Your task to perform on an android device: toggle notifications settings in the gmail app Image 0: 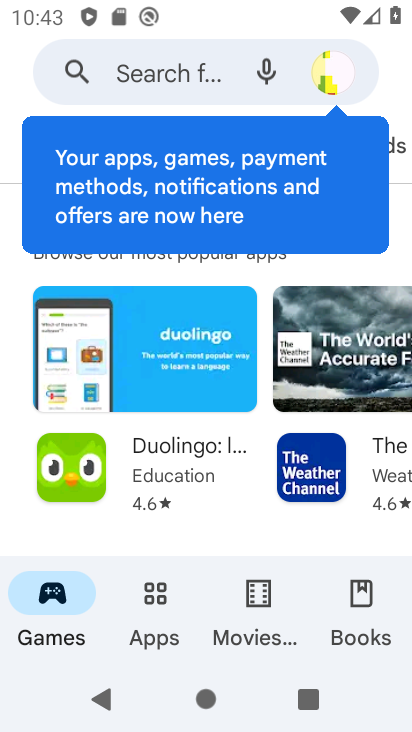
Step 0: press home button
Your task to perform on an android device: toggle notifications settings in the gmail app Image 1: 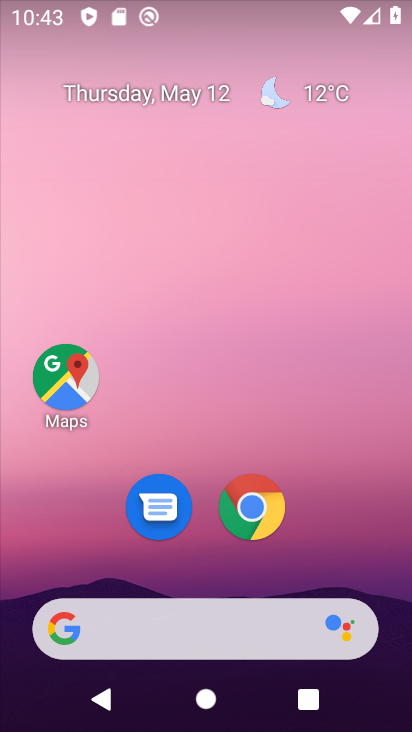
Step 1: drag from (198, 562) to (207, 56)
Your task to perform on an android device: toggle notifications settings in the gmail app Image 2: 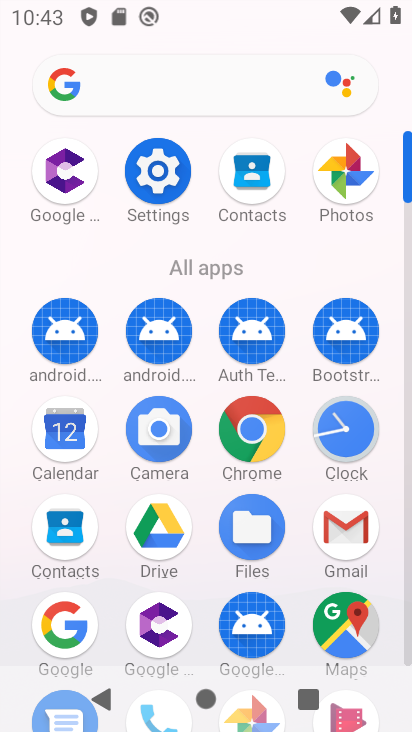
Step 2: click (342, 536)
Your task to perform on an android device: toggle notifications settings in the gmail app Image 3: 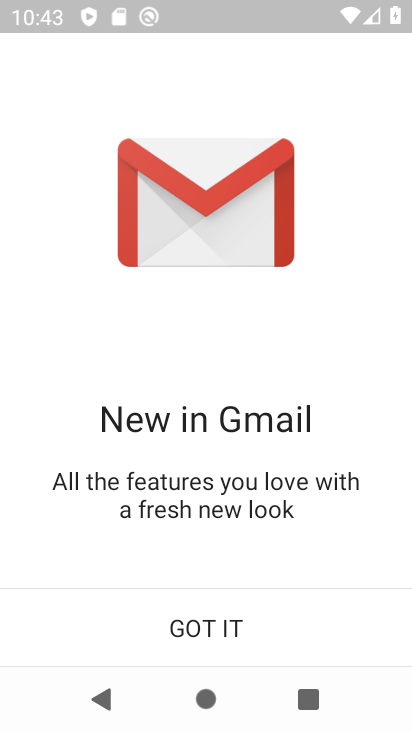
Step 3: click (262, 618)
Your task to perform on an android device: toggle notifications settings in the gmail app Image 4: 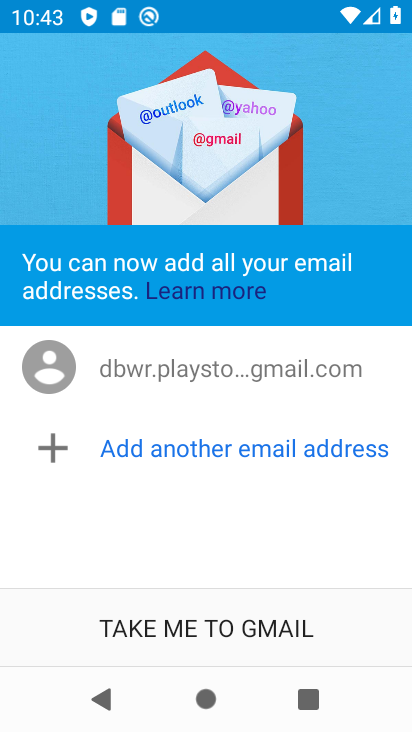
Step 4: click (213, 653)
Your task to perform on an android device: toggle notifications settings in the gmail app Image 5: 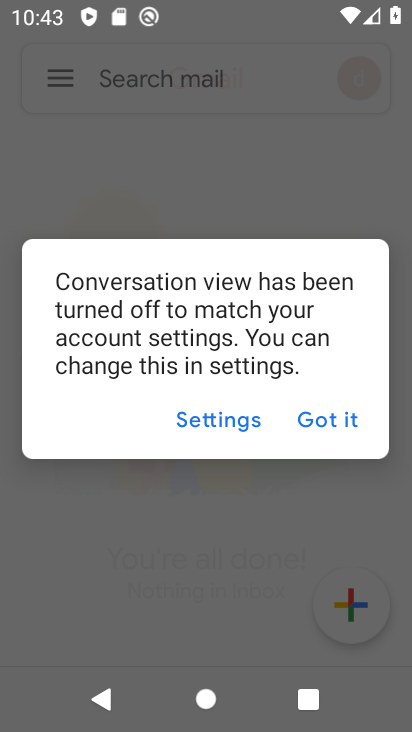
Step 5: click (241, 427)
Your task to perform on an android device: toggle notifications settings in the gmail app Image 6: 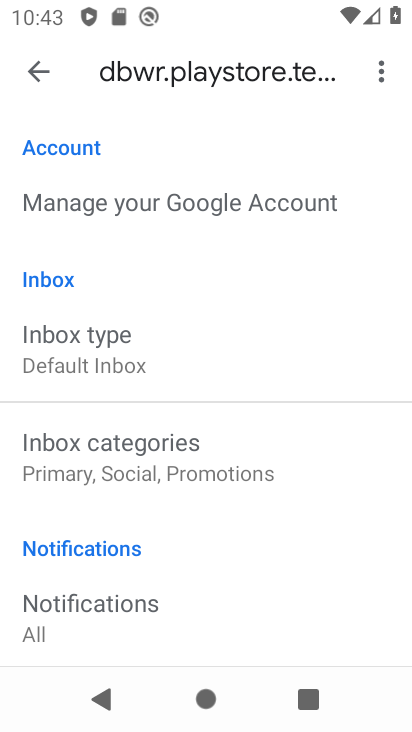
Step 6: click (25, 60)
Your task to perform on an android device: toggle notifications settings in the gmail app Image 7: 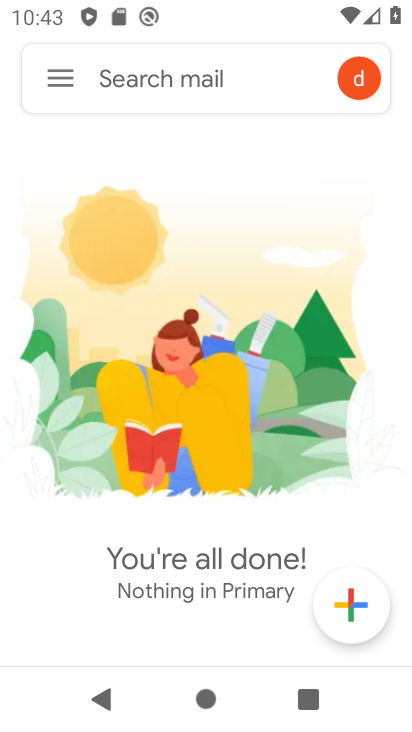
Step 7: click (56, 84)
Your task to perform on an android device: toggle notifications settings in the gmail app Image 8: 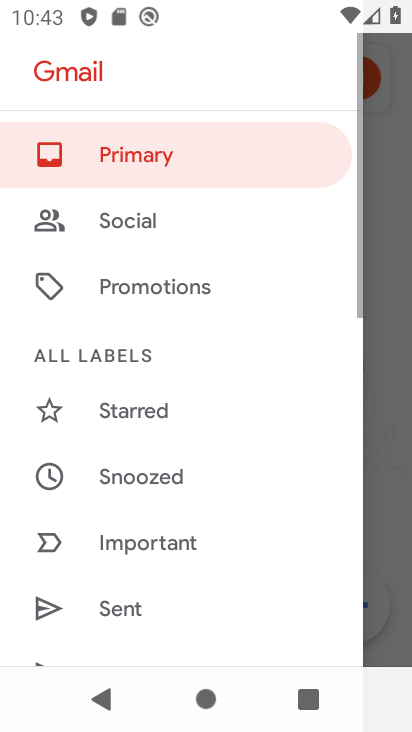
Step 8: drag from (118, 570) to (186, 108)
Your task to perform on an android device: toggle notifications settings in the gmail app Image 9: 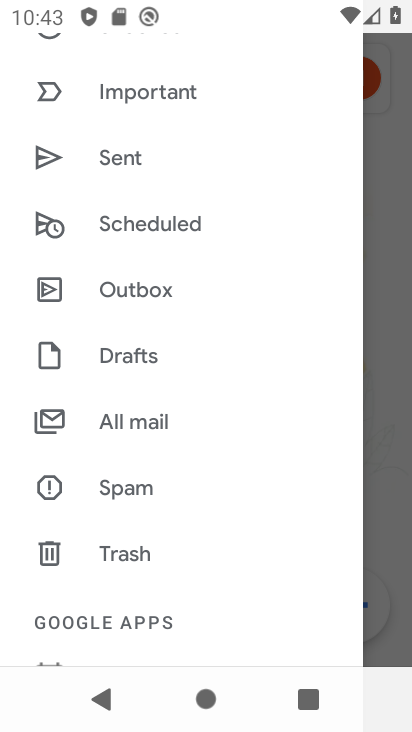
Step 9: drag from (162, 577) to (167, 137)
Your task to perform on an android device: toggle notifications settings in the gmail app Image 10: 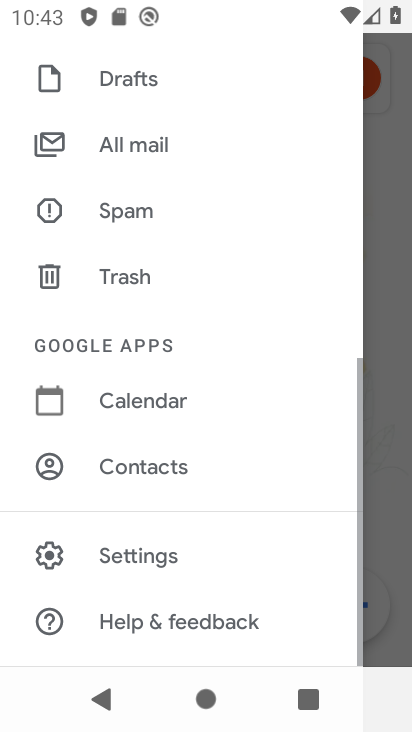
Step 10: click (173, 562)
Your task to perform on an android device: toggle notifications settings in the gmail app Image 11: 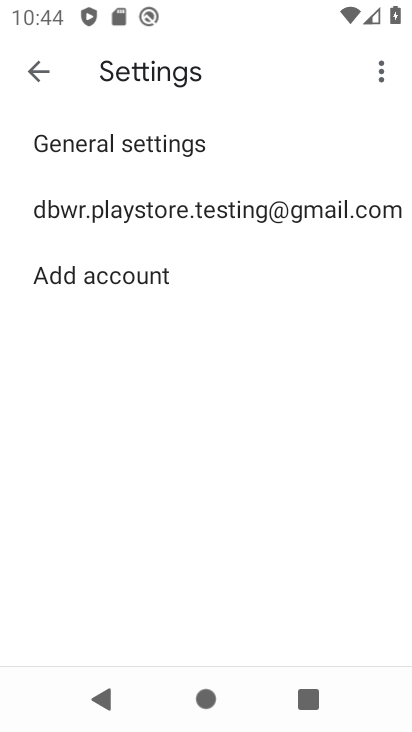
Step 11: click (128, 123)
Your task to perform on an android device: toggle notifications settings in the gmail app Image 12: 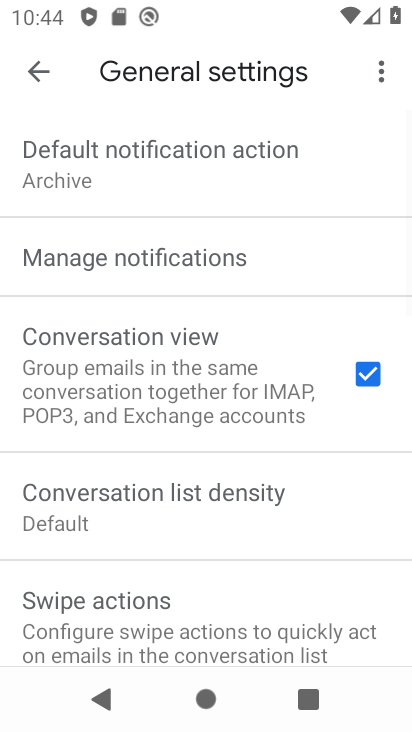
Step 12: click (150, 260)
Your task to perform on an android device: toggle notifications settings in the gmail app Image 13: 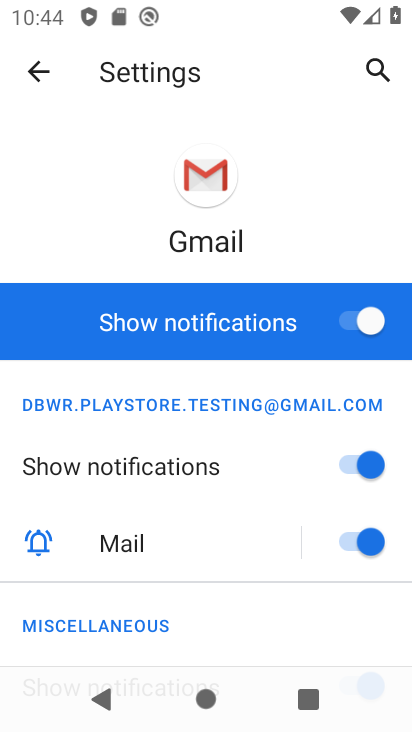
Step 13: click (330, 323)
Your task to perform on an android device: toggle notifications settings in the gmail app Image 14: 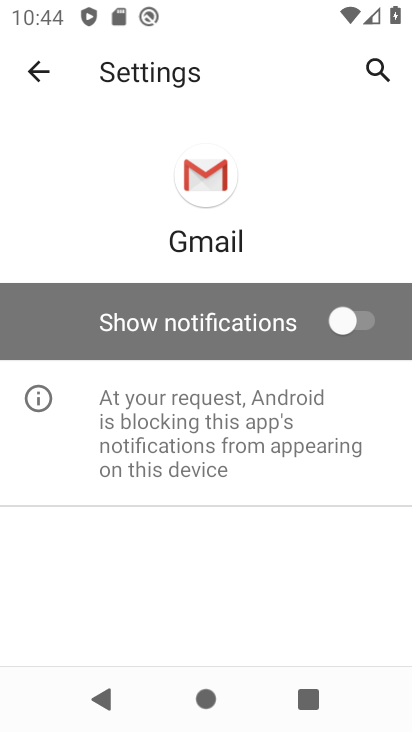
Step 14: task complete